Your task to perform on an android device: Open the web browser Image 0: 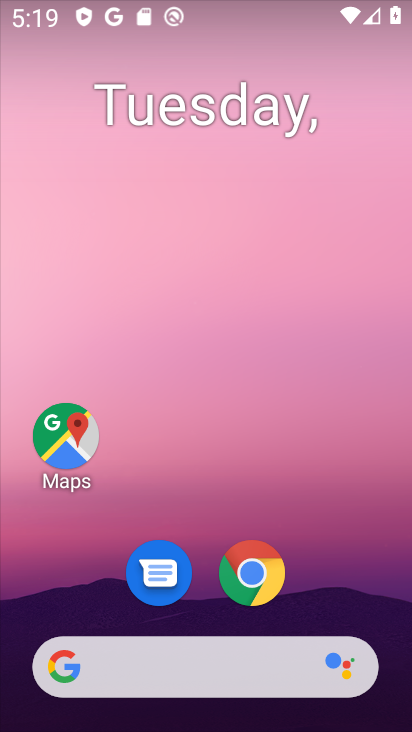
Step 0: drag from (331, 549) to (263, 18)
Your task to perform on an android device: Open the web browser Image 1: 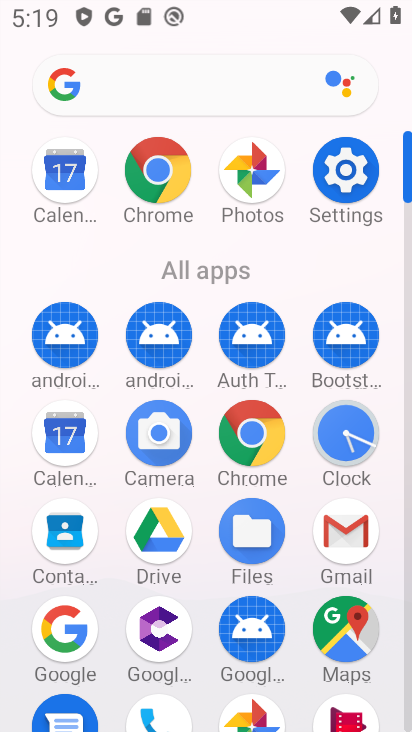
Step 1: click (155, 168)
Your task to perform on an android device: Open the web browser Image 2: 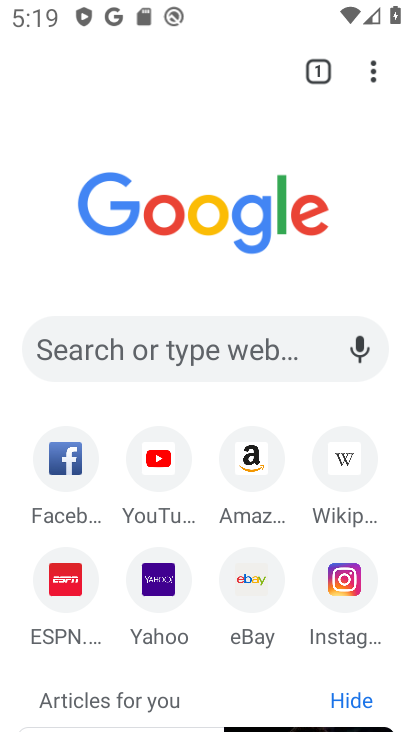
Step 2: task complete